Your task to perform on an android device: Open settings Image 0: 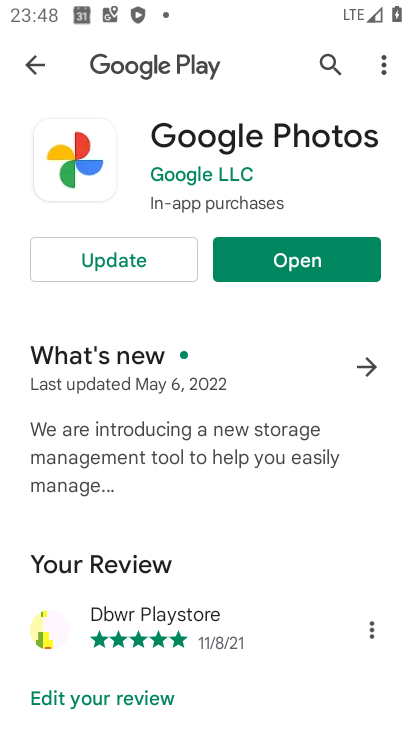
Step 0: press home button
Your task to perform on an android device: Open settings Image 1: 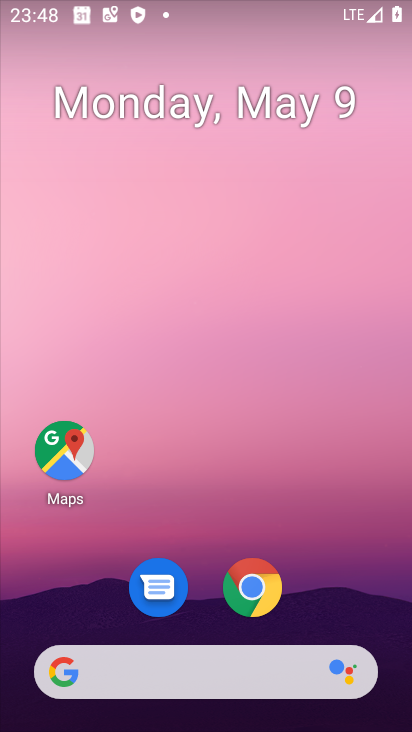
Step 1: drag from (210, 619) to (248, 166)
Your task to perform on an android device: Open settings Image 2: 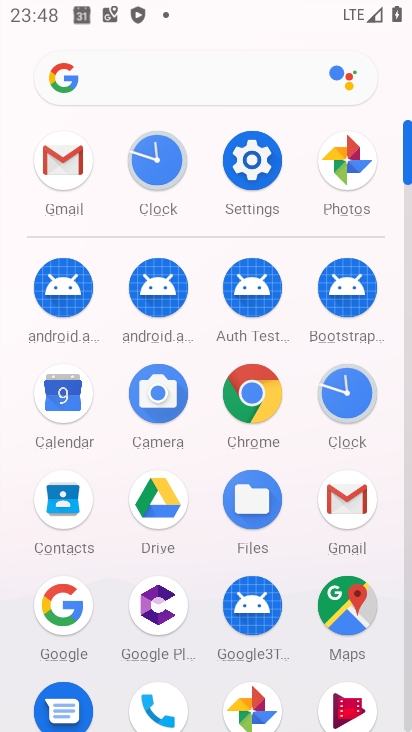
Step 2: click (240, 177)
Your task to perform on an android device: Open settings Image 3: 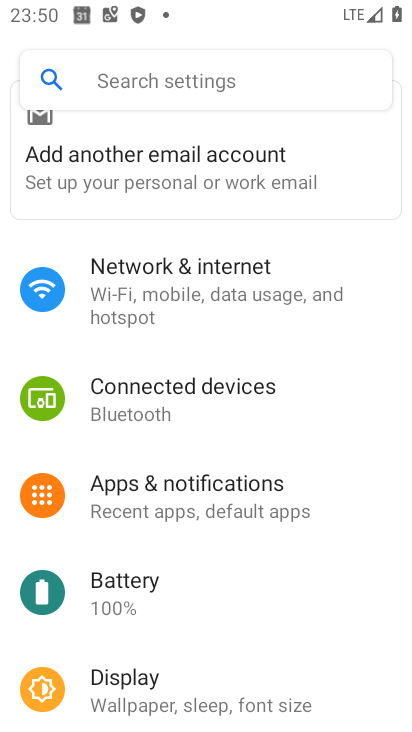
Step 3: task complete